Your task to perform on an android device: change text size in settings app Image 0: 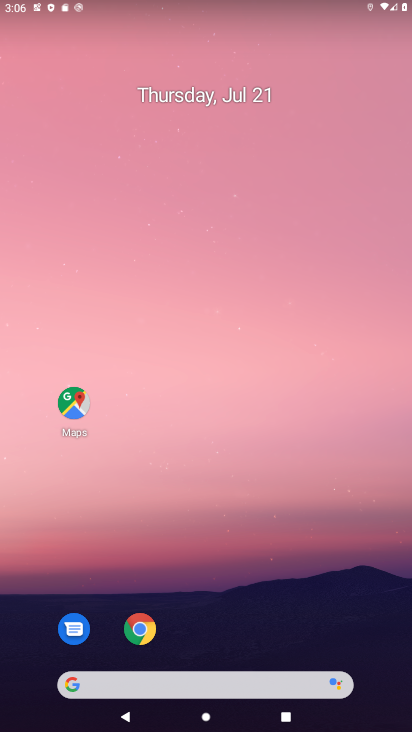
Step 0: drag from (211, 636) to (271, 76)
Your task to perform on an android device: change text size in settings app Image 1: 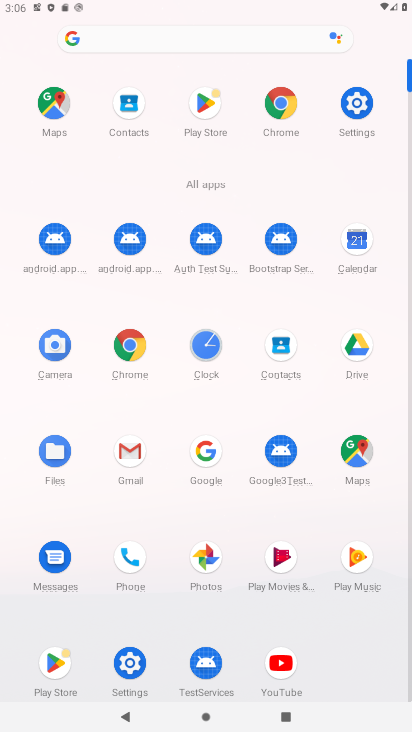
Step 1: click (359, 113)
Your task to perform on an android device: change text size in settings app Image 2: 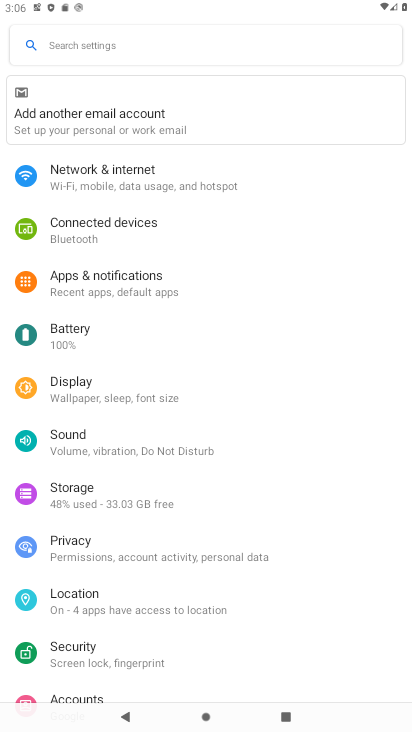
Step 2: click (120, 395)
Your task to perform on an android device: change text size in settings app Image 3: 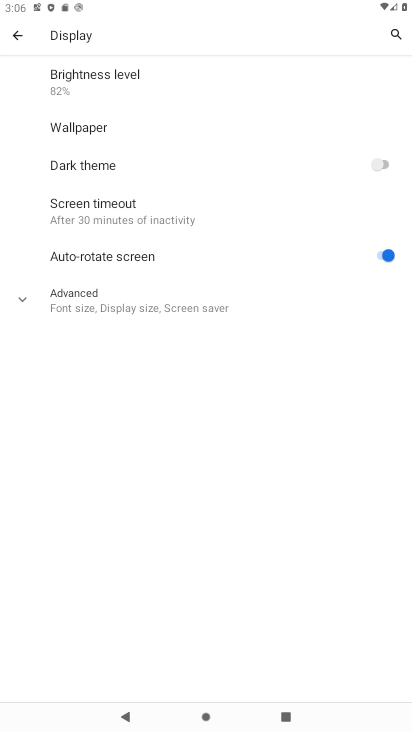
Step 3: click (93, 311)
Your task to perform on an android device: change text size in settings app Image 4: 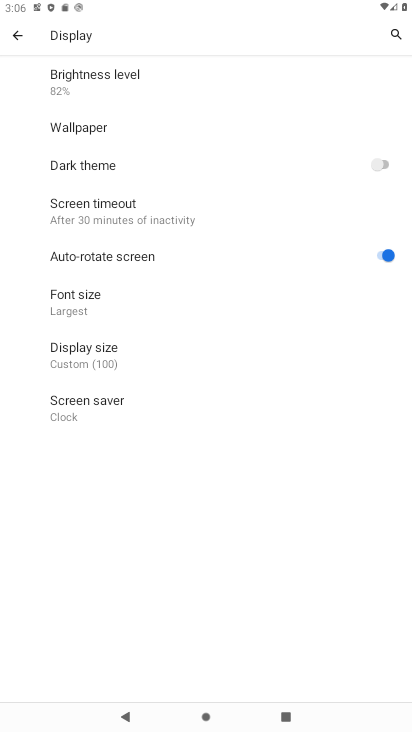
Step 4: click (95, 307)
Your task to perform on an android device: change text size in settings app Image 5: 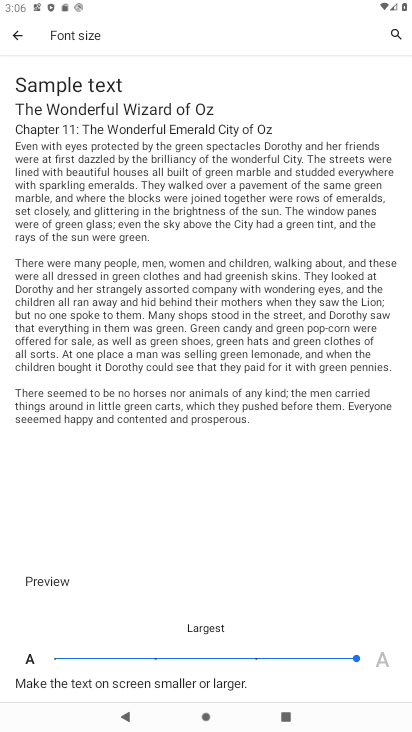
Step 5: click (256, 652)
Your task to perform on an android device: change text size in settings app Image 6: 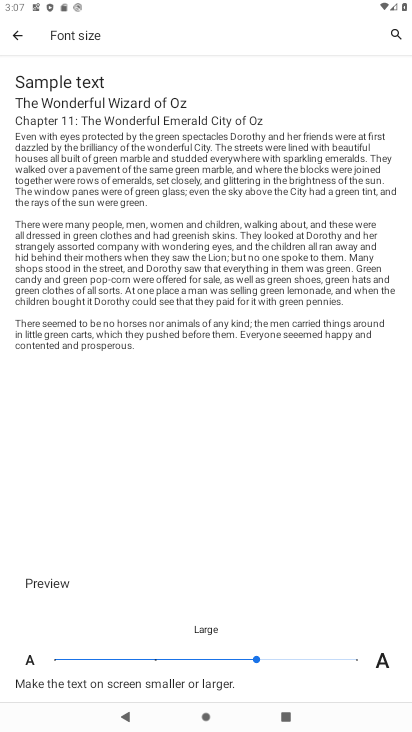
Step 6: task complete